Your task to perform on an android device: install app "Messages" Image 0: 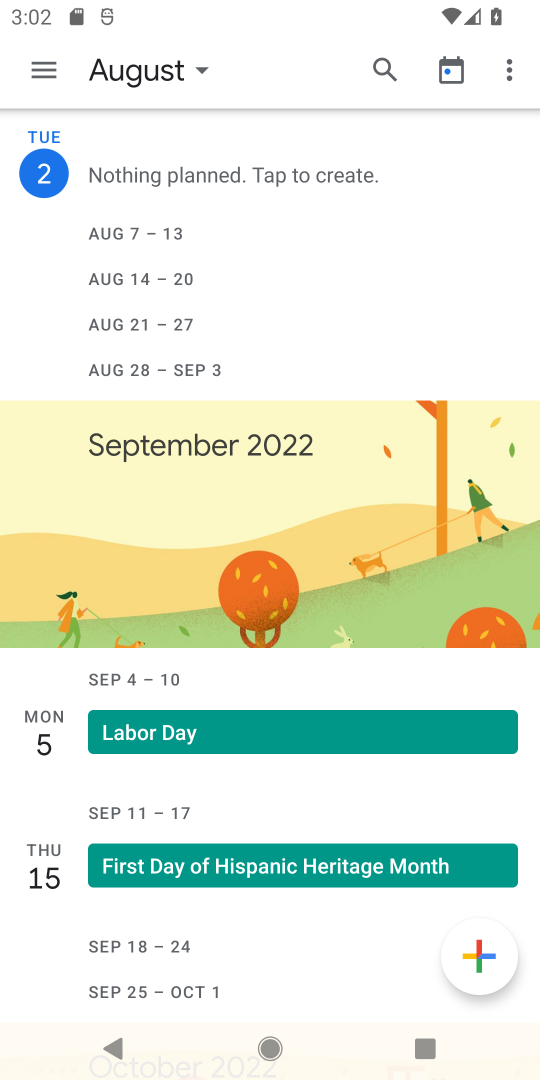
Step 0: press home button
Your task to perform on an android device: install app "Messages" Image 1: 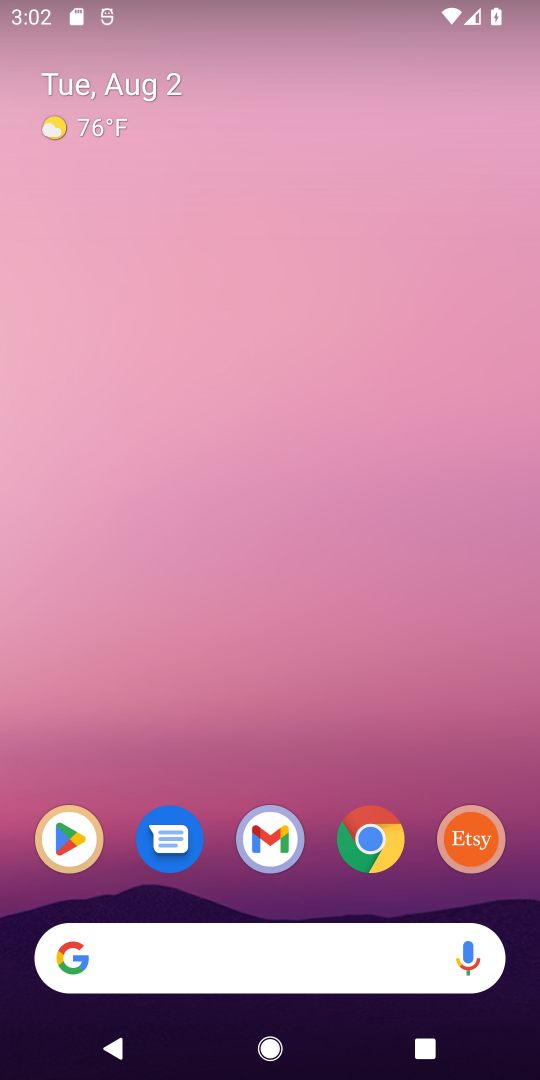
Step 1: click (185, 849)
Your task to perform on an android device: install app "Messages" Image 2: 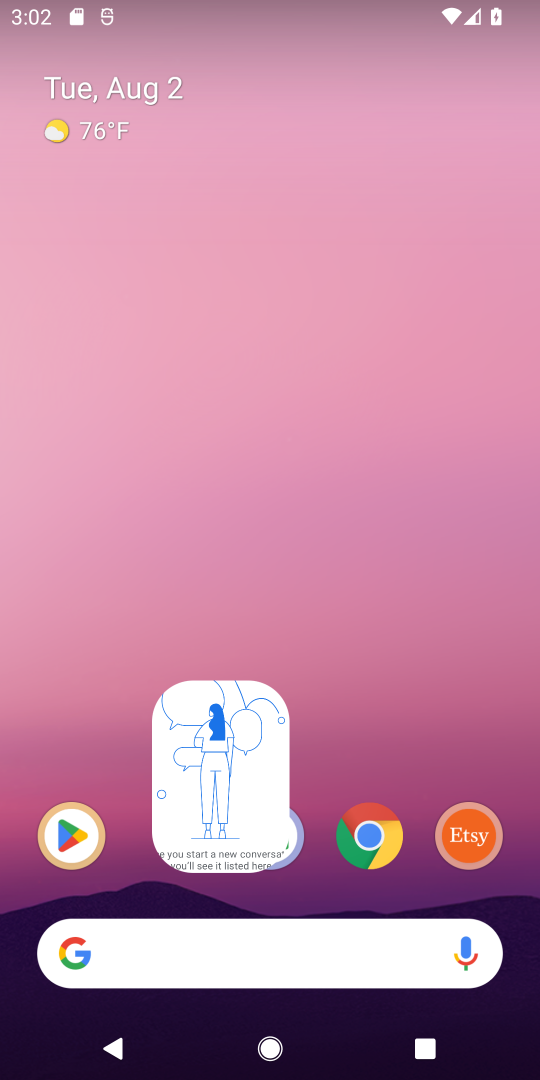
Step 2: task complete